Your task to perform on an android device: What's the weather today? Image 0: 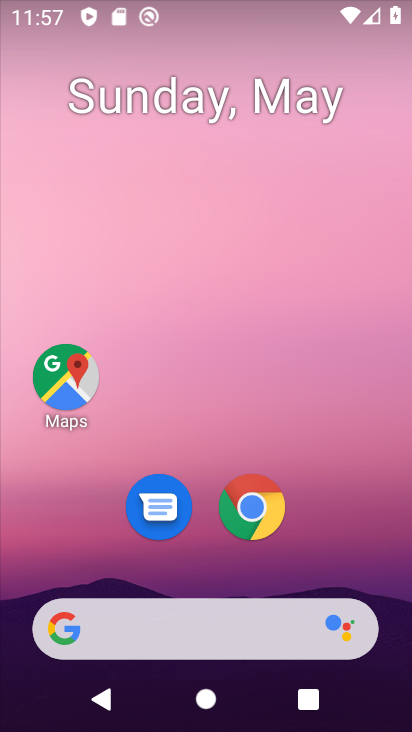
Step 0: drag from (239, 714) to (235, 94)
Your task to perform on an android device: What's the weather today? Image 1: 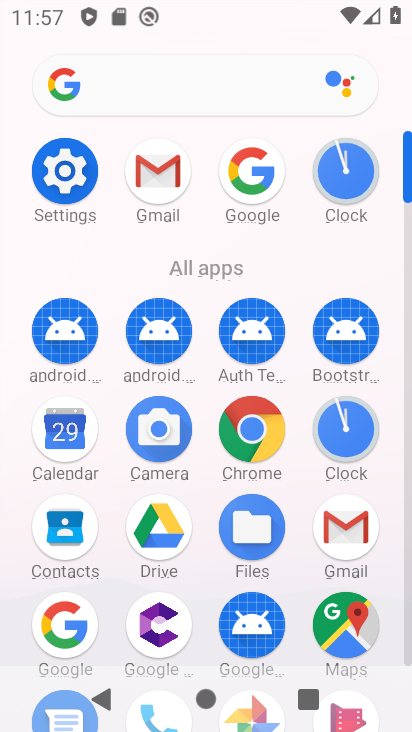
Step 1: click (75, 618)
Your task to perform on an android device: What's the weather today? Image 2: 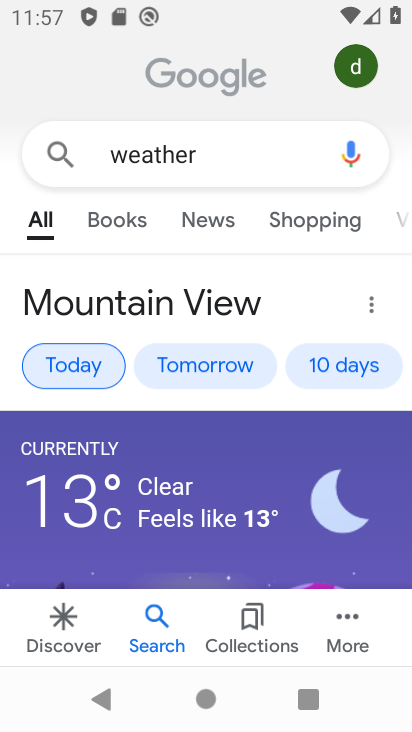
Step 2: click (76, 364)
Your task to perform on an android device: What's the weather today? Image 3: 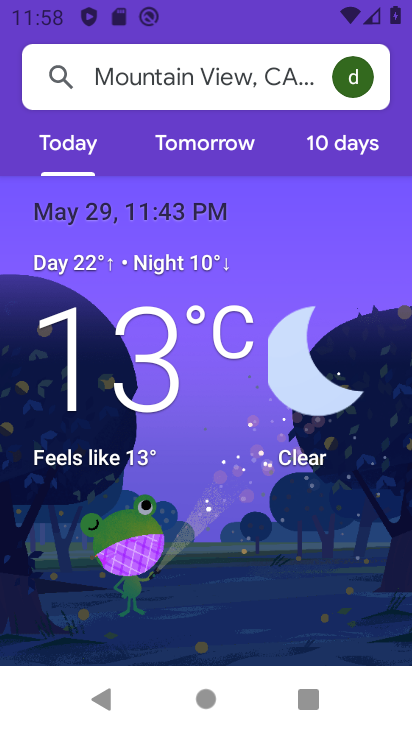
Step 3: task complete